Your task to perform on an android device: open wifi settings Image 0: 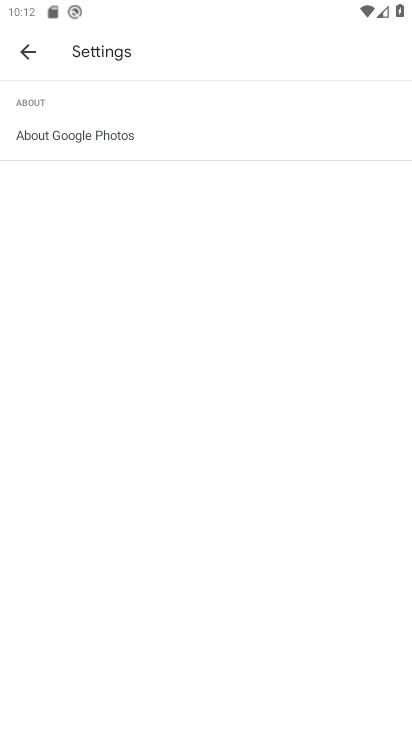
Step 0: drag from (343, 609) to (337, 259)
Your task to perform on an android device: open wifi settings Image 1: 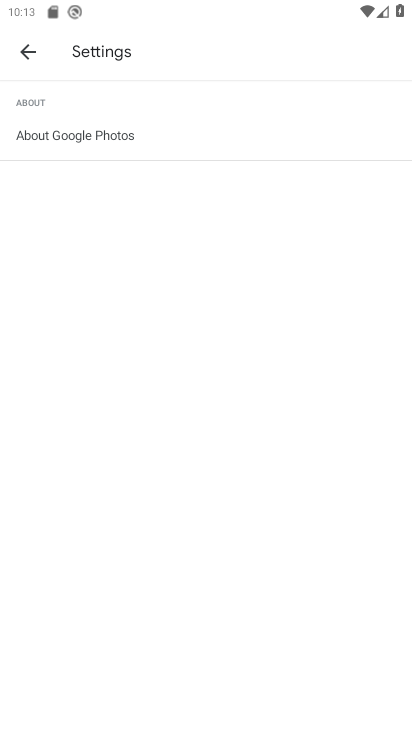
Step 1: press home button
Your task to perform on an android device: open wifi settings Image 2: 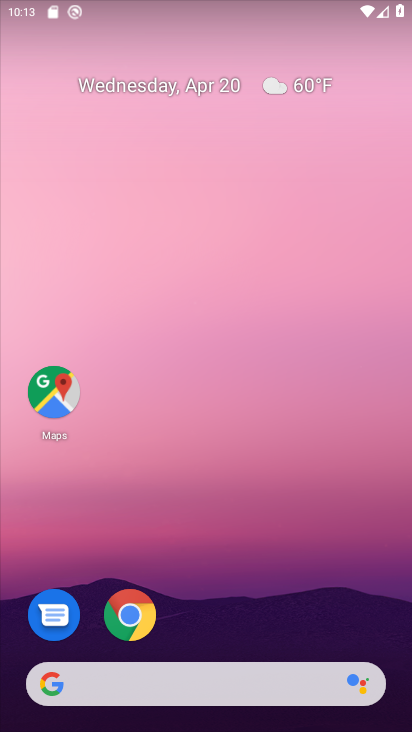
Step 2: drag from (311, 414) to (353, 132)
Your task to perform on an android device: open wifi settings Image 3: 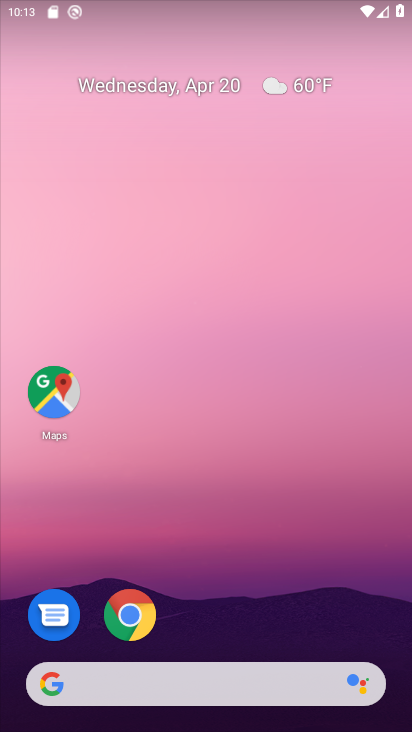
Step 3: drag from (374, 600) to (349, 132)
Your task to perform on an android device: open wifi settings Image 4: 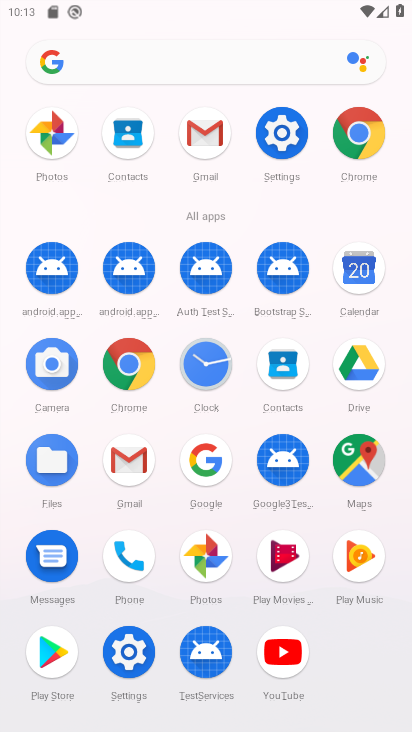
Step 4: click (287, 148)
Your task to perform on an android device: open wifi settings Image 5: 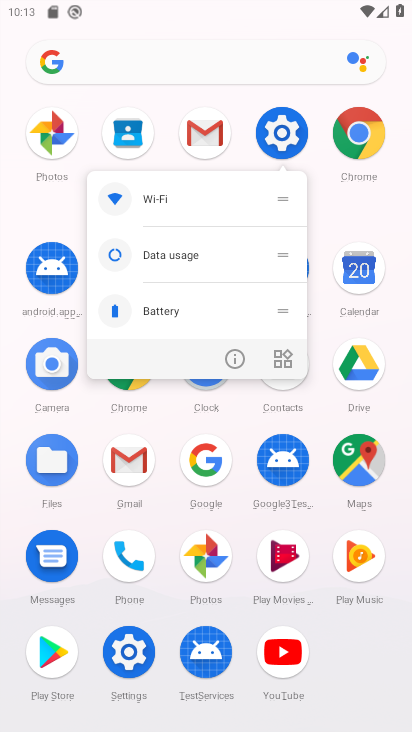
Step 5: click (291, 125)
Your task to perform on an android device: open wifi settings Image 6: 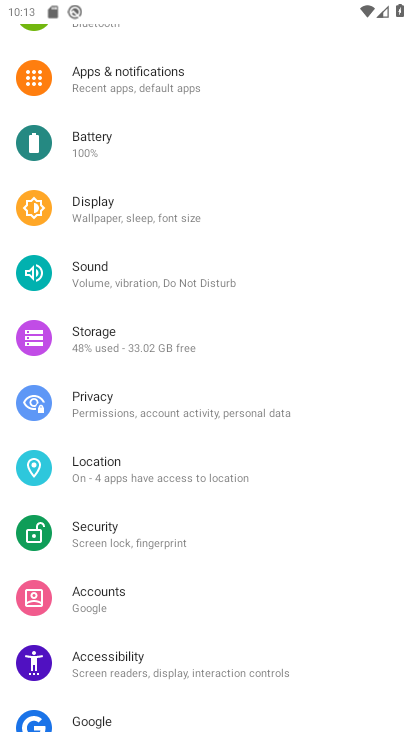
Step 6: drag from (308, 548) to (320, 269)
Your task to perform on an android device: open wifi settings Image 7: 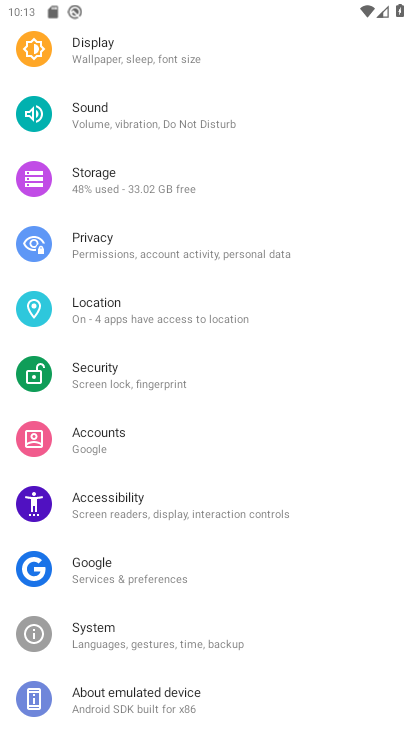
Step 7: drag from (298, 182) to (302, 628)
Your task to perform on an android device: open wifi settings Image 8: 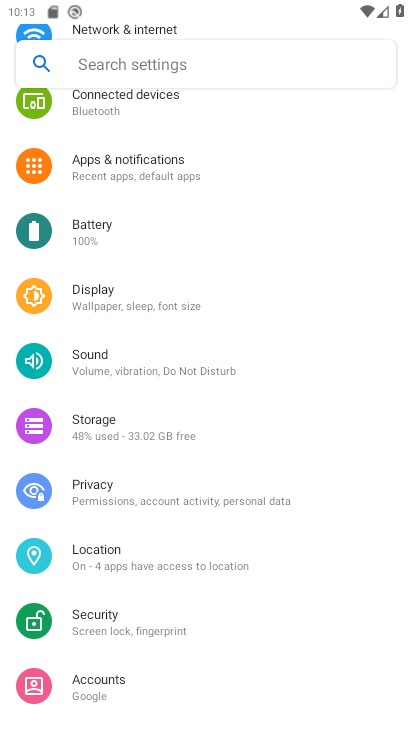
Step 8: drag from (305, 265) to (306, 595)
Your task to perform on an android device: open wifi settings Image 9: 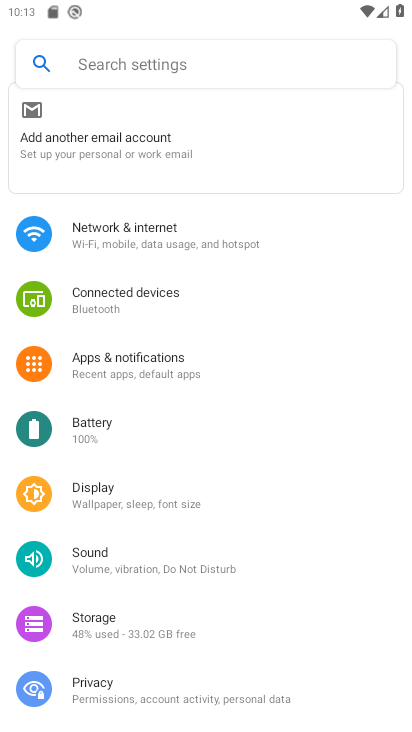
Step 9: click (128, 236)
Your task to perform on an android device: open wifi settings Image 10: 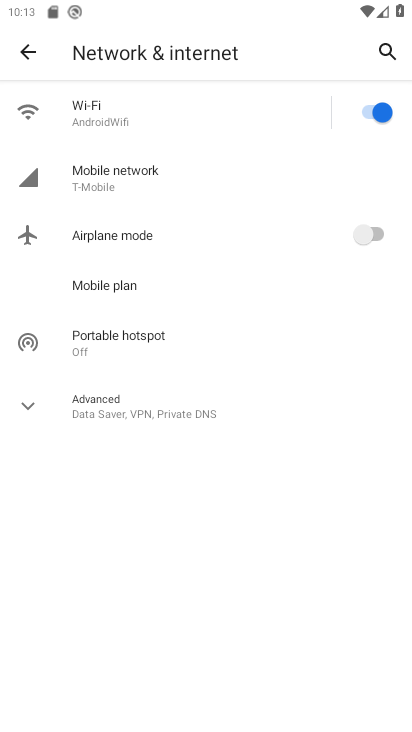
Step 10: click (105, 112)
Your task to perform on an android device: open wifi settings Image 11: 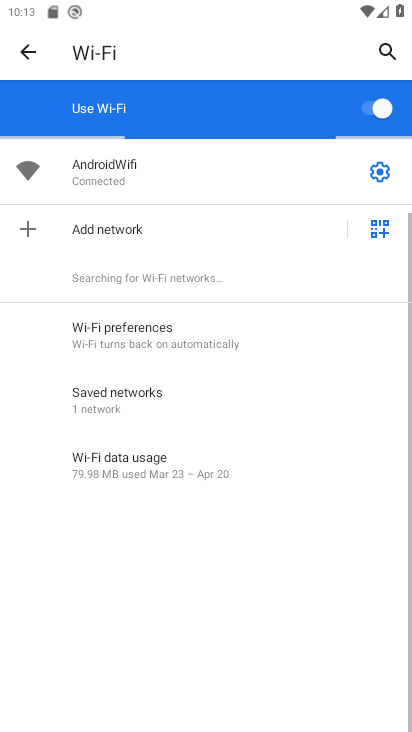
Step 11: click (376, 168)
Your task to perform on an android device: open wifi settings Image 12: 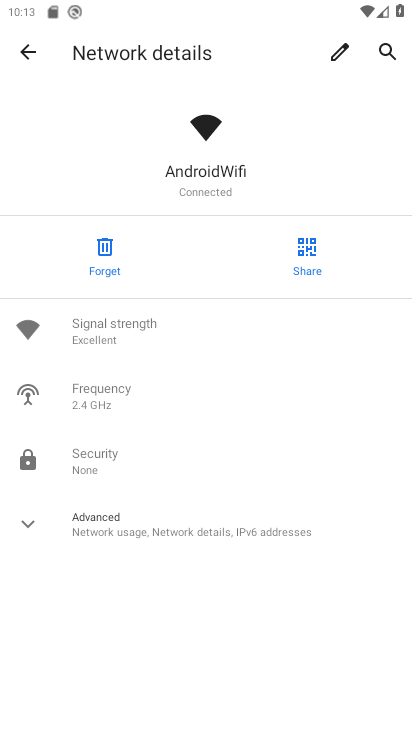
Step 12: task complete